Your task to perform on an android device: Open the calendar and show me this week's events? Image 0: 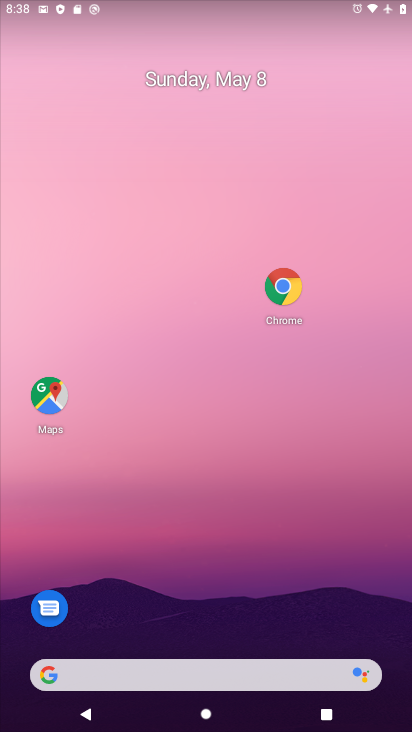
Step 0: drag from (174, 674) to (270, 58)
Your task to perform on an android device: Open the calendar and show me this week's events? Image 1: 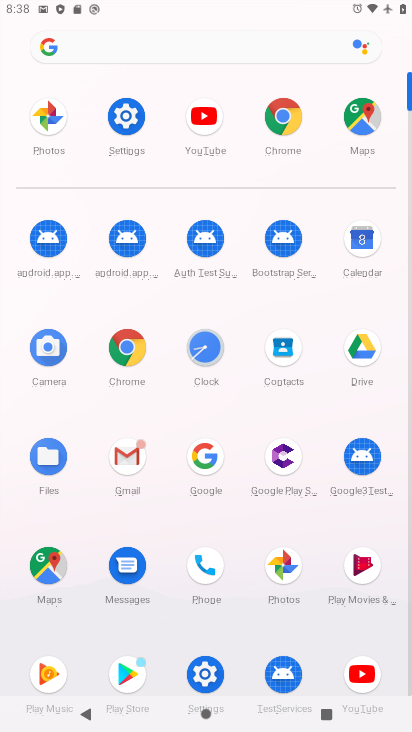
Step 1: click (365, 247)
Your task to perform on an android device: Open the calendar and show me this week's events? Image 2: 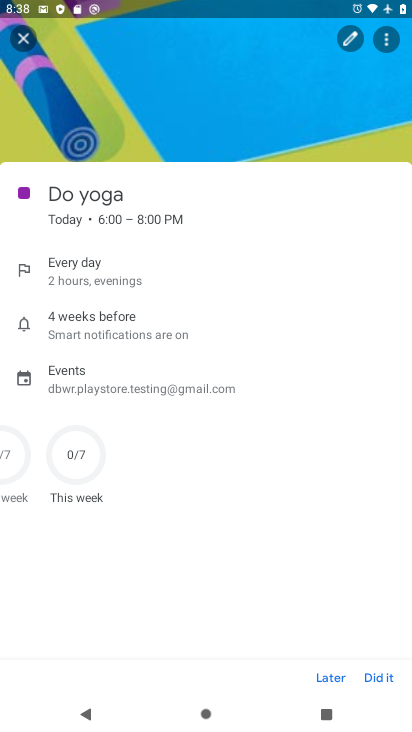
Step 2: click (31, 39)
Your task to perform on an android device: Open the calendar and show me this week's events? Image 3: 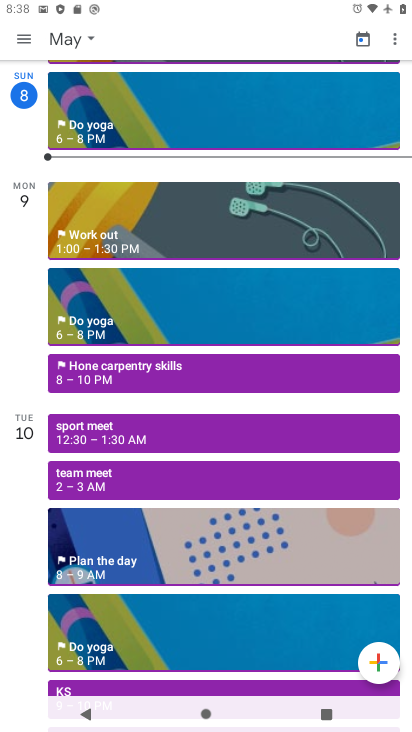
Step 3: click (83, 39)
Your task to perform on an android device: Open the calendar and show me this week's events? Image 4: 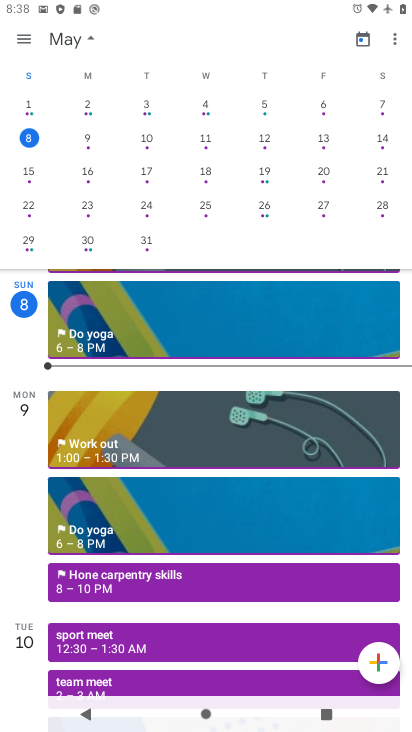
Step 4: click (28, 34)
Your task to perform on an android device: Open the calendar and show me this week's events? Image 5: 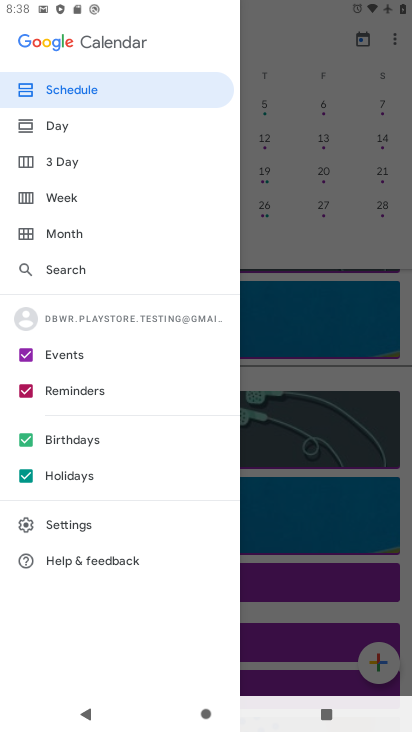
Step 5: click (62, 190)
Your task to perform on an android device: Open the calendar and show me this week's events? Image 6: 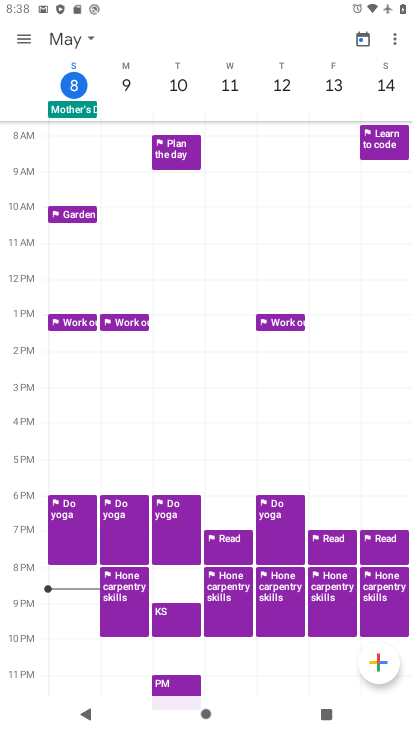
Step 6: click (24, 34)
Your task to perform on an android device: Open the calendar and show me this week's events? Image 7: 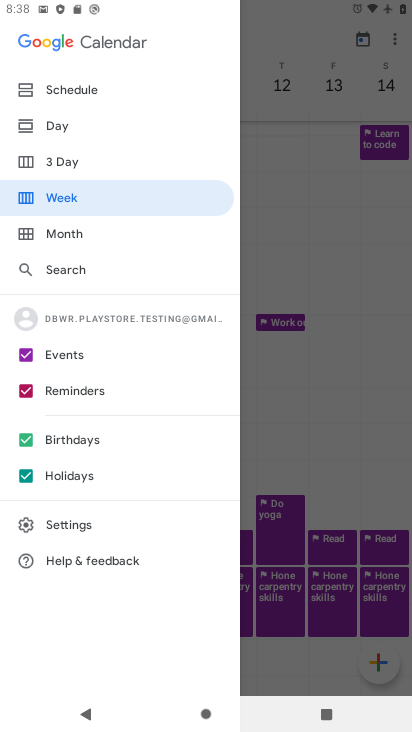
Step 7: click (85, 91)
Your task to perform on an android device: Open the calendar and show me this week's events? Image 8: 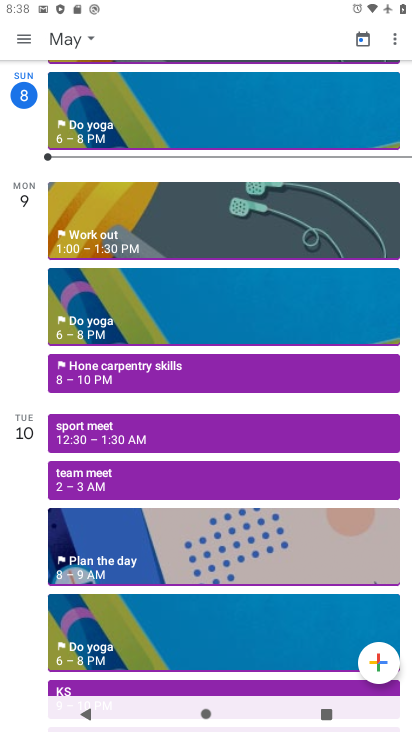
Step 8: click (183, 365)
Your task to perform on an android device: Open the calendar and show me this week's events? Image 9: 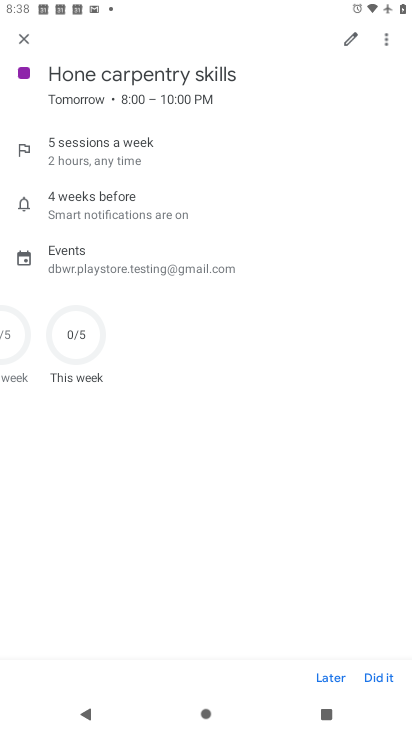
Step 9: task complete